Your task to perform on an android device: star an email in the gmail app Image 0: 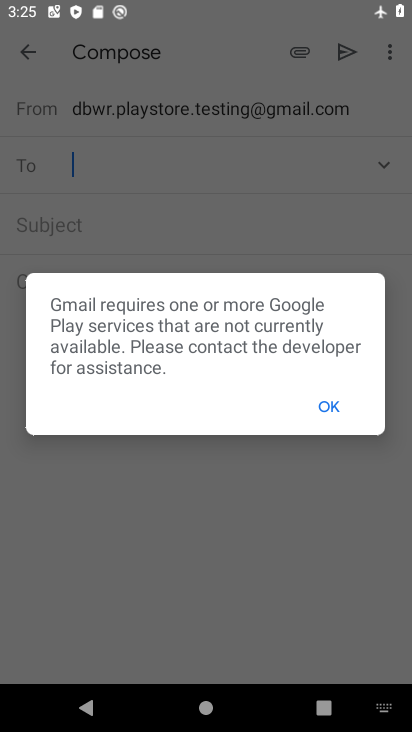
Step 0: press home button
Your task to perform on an android device: star an email in the gmail app Image 1: 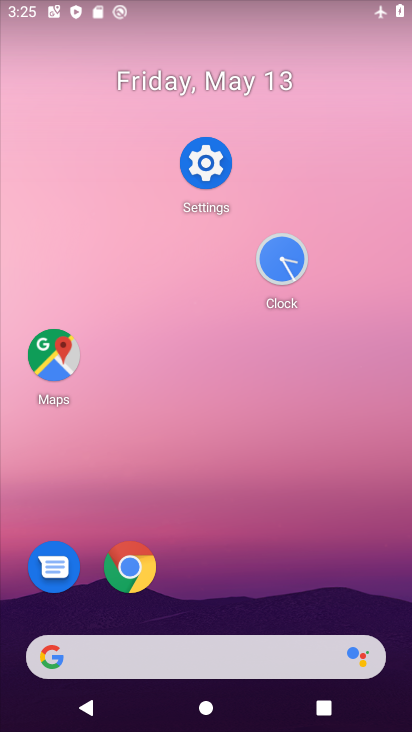
Step 1: drag from (244, 584) to (246, 236)
Your task to perform on an android device: star an email in the gmail app Image 2: 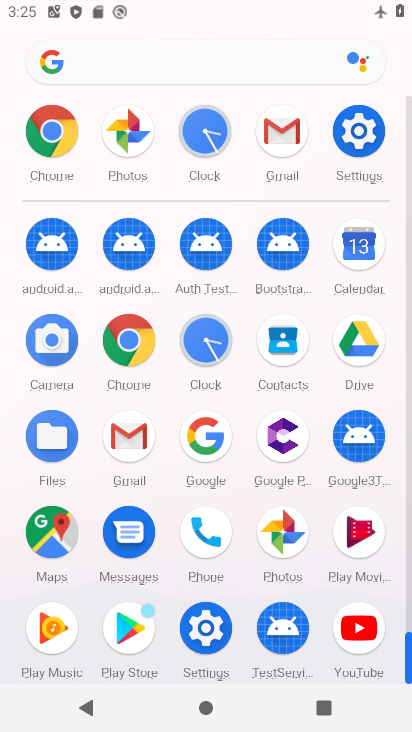
Step 2: click (279, 134)
Your task to perform on an android device: star an email in the gmail app Image 3: 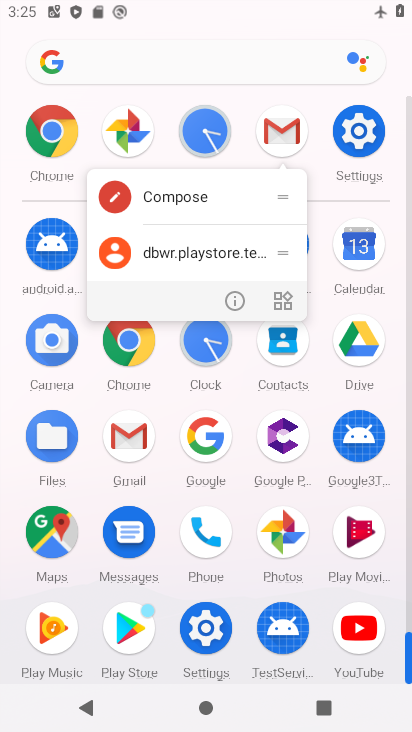
Step 3: click (281, 126)
Your task to perform on an android device: star an email in the gmail app Image 4: 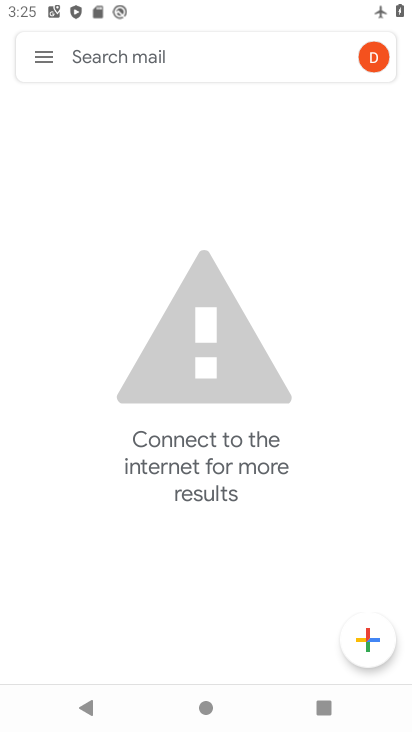
Step 4: click (281, 126)
Your task to perform on an android device: star an email in the gmail app Image 5: 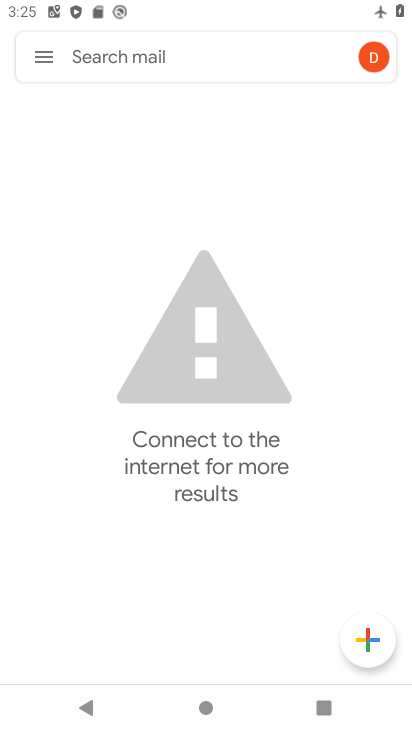
Step 5: click (63, 46)
Your task to perform on an android device: star an email in the gmail app Image 6: 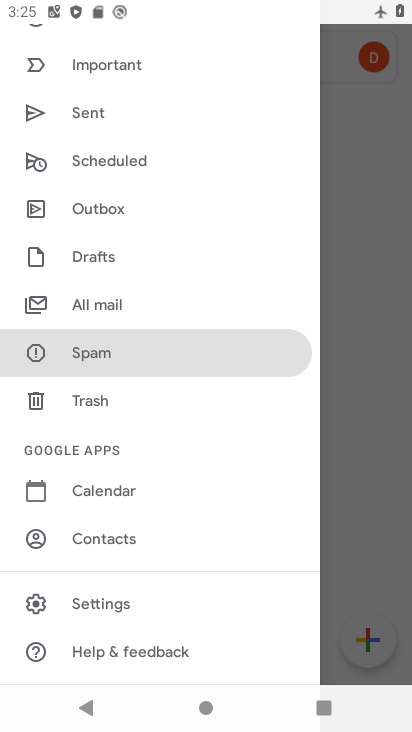
Step 6: click (108, 303)
Your task to perform on an android device: star an email in the gmail app Image 7: 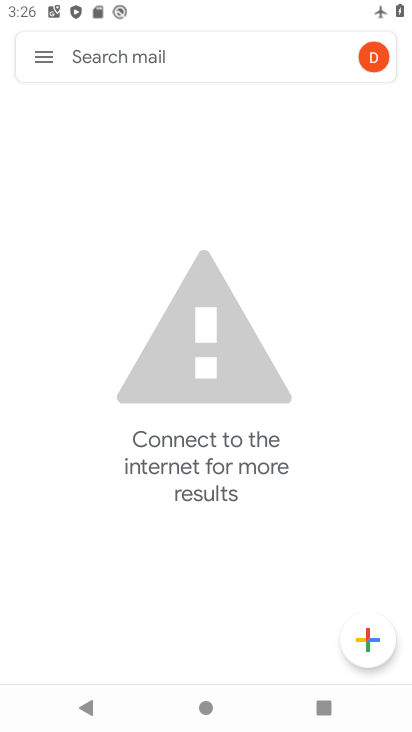
Step 7: task complete